Your task to perform on an android device: check google app version Image 0: 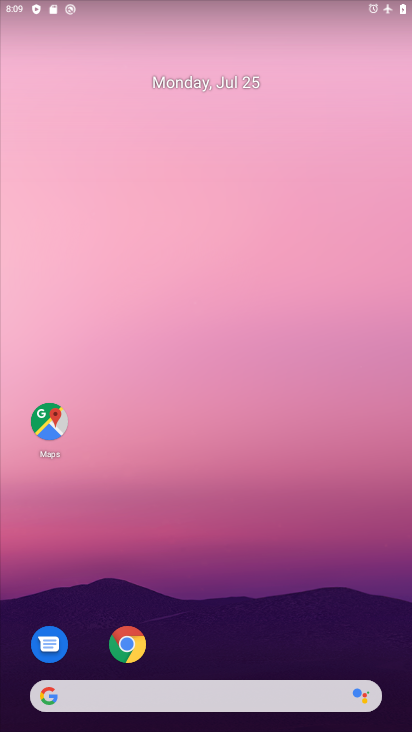
Step 0: click (44, 693)
Your task to perform on an android device: check google app version Image 1: 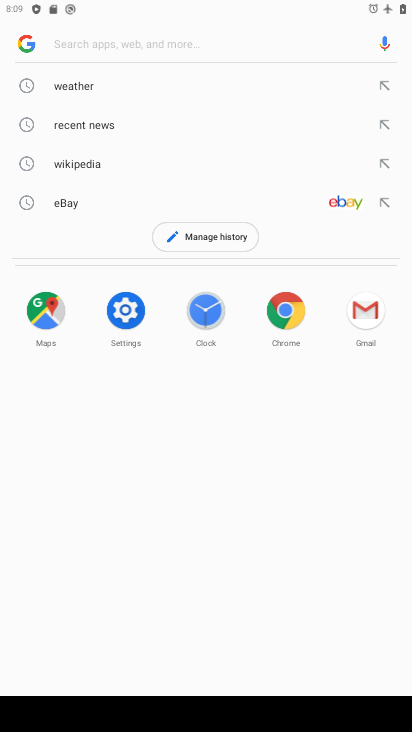
Step 1: click (22, 40)
Your task to perform on an android device: check google app version Image 2: 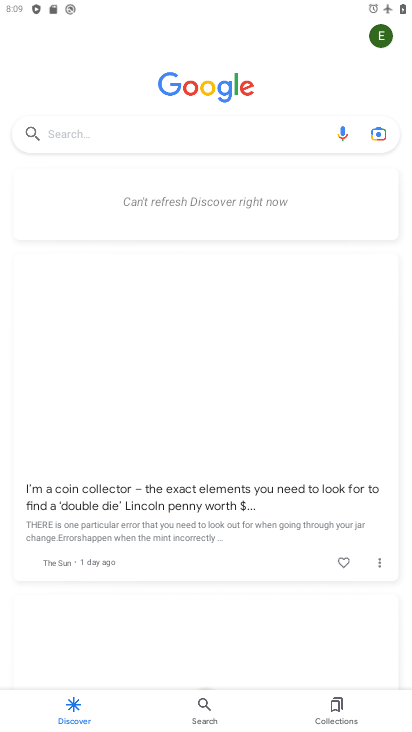
Step 2: click (379, 33)
Your task to perform on an android device: check google app version Image 3: 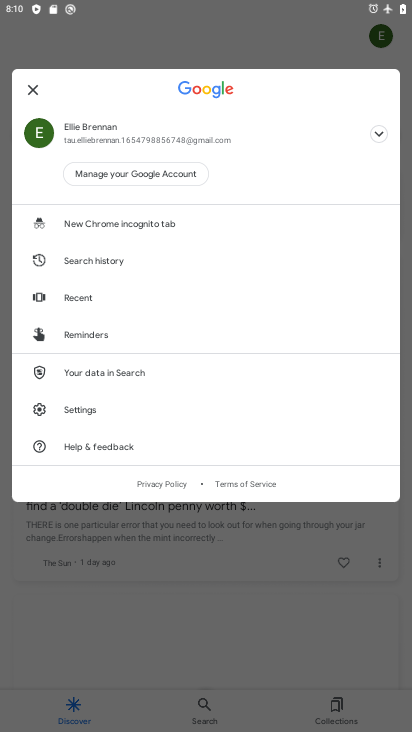
Step 3: click (60, 406)
Your task to perform on an android device: check google app version Image 4: 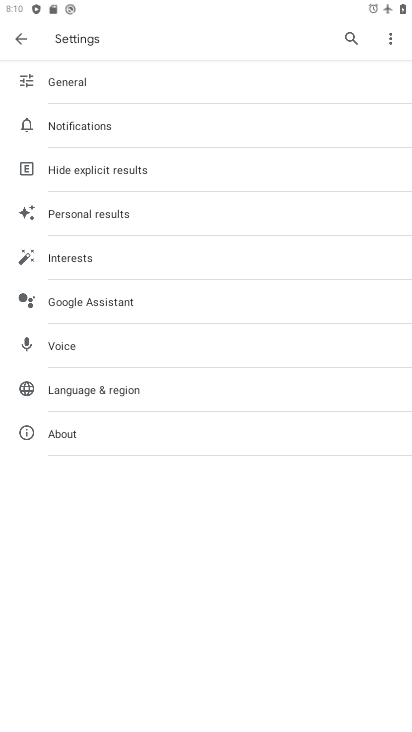
Step 4: click (68, 446)
Your task to perform on an android device: check google app version Image 5: 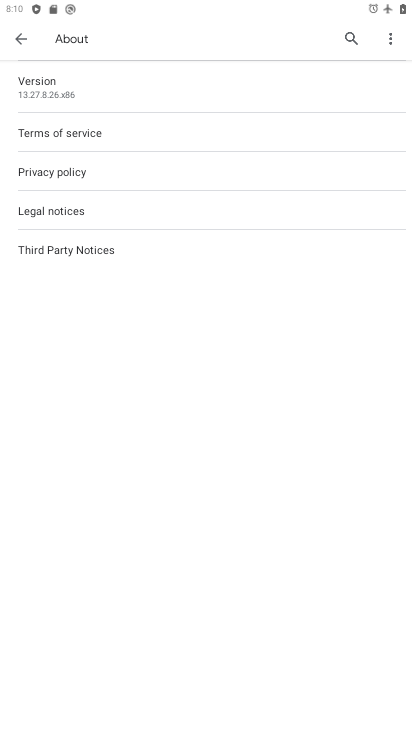
Step 5: task complete